Your task to perform on an android device: Open the calendar and show me this week's events? Image 0: 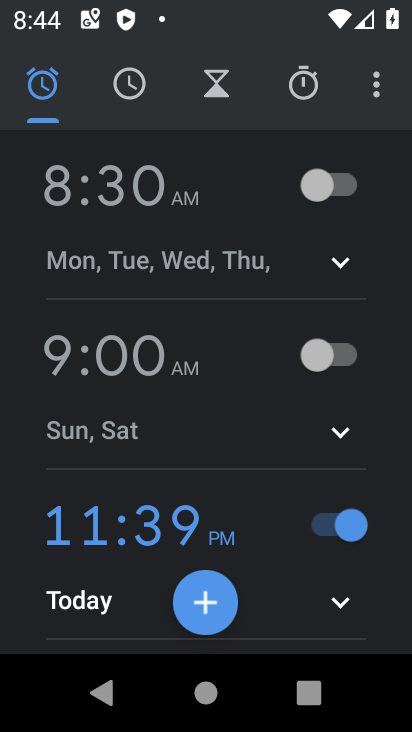
Step 0: press home button
Your task to perform on an android device: Open the calendar and show me this week's events? Image 1: 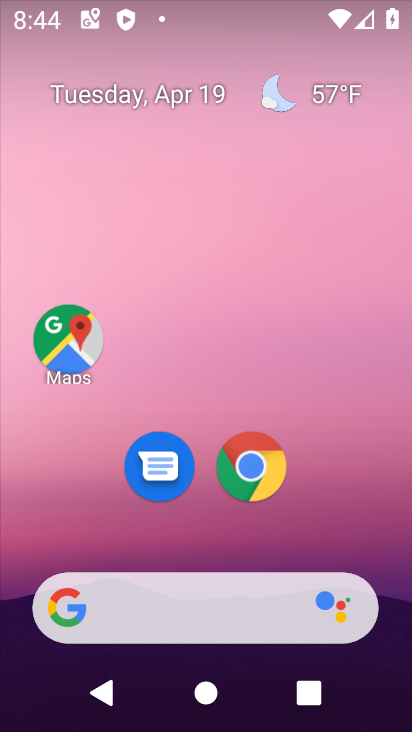
Step 1: drag from (210, 408) to (210, 65)
Your task to perform on an android device: Open the calendar and show me this week's events? Image 2: 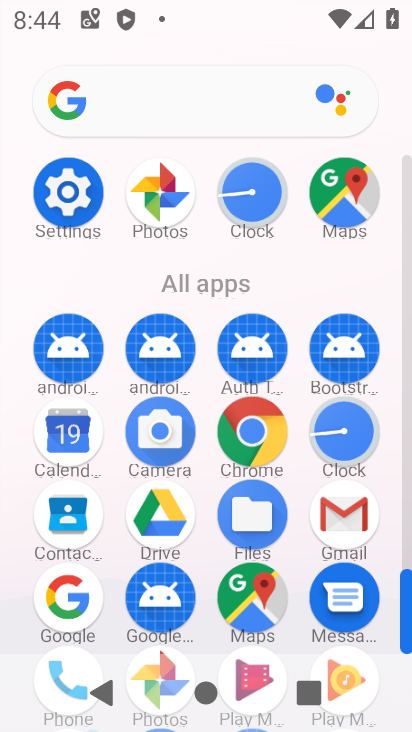
Step 2: click (64, 433)
Your task to perform on an android device: Open the calendar and show me this week's events? Image 3: 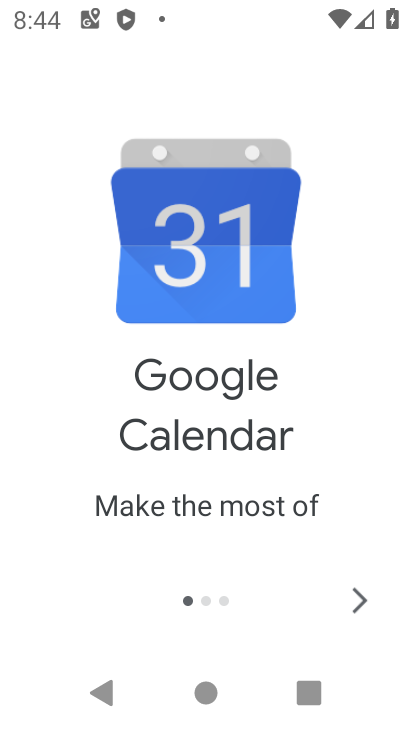
Step 3: click (363, 599)
Your task to perform on an android device: Open the calendar and show me this week's events? Image 4: 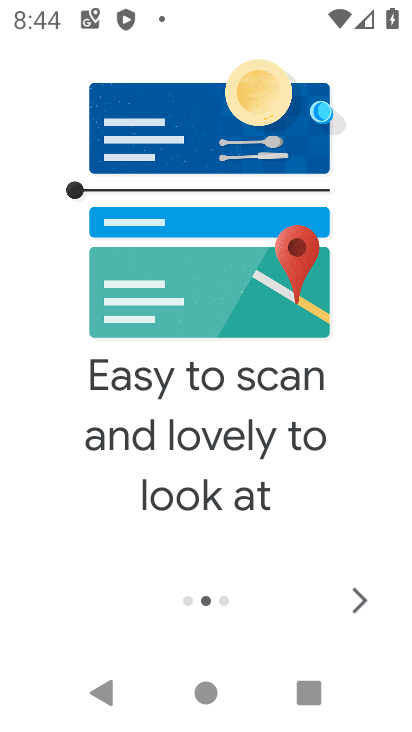
Step 4: click (363, 599)
Your task to perform on an android device: Open the calendar and show me this week's events? Image 5: 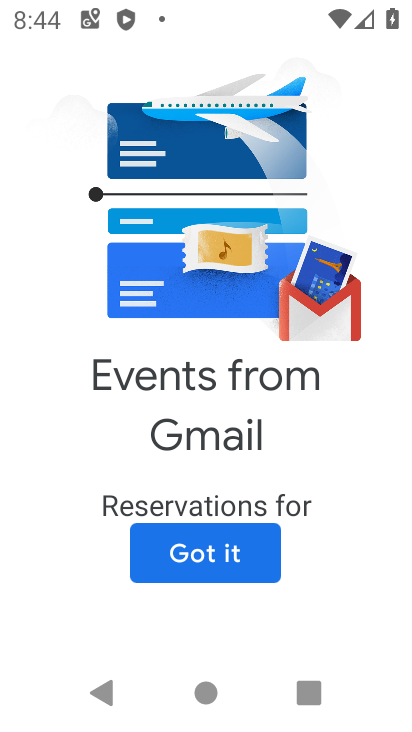
Step 5: click (211, 557)
Your task to perform on an android device: Open the calendar and show me this week's events? Image 6: 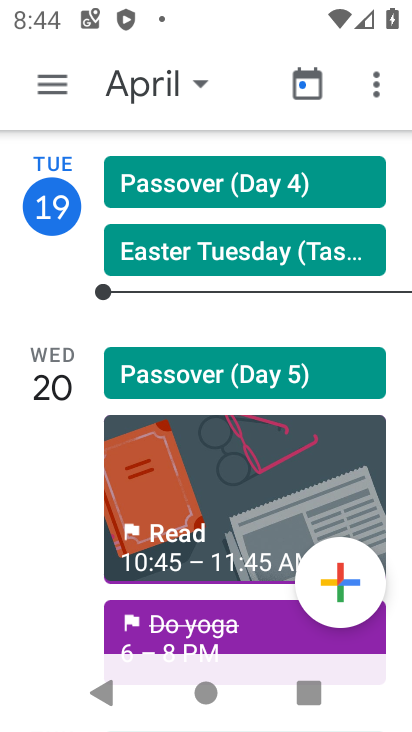
Step 6: click (51, 84)
Your task to perform on an android device: Open the calendar and show me this week's events? Image 7: 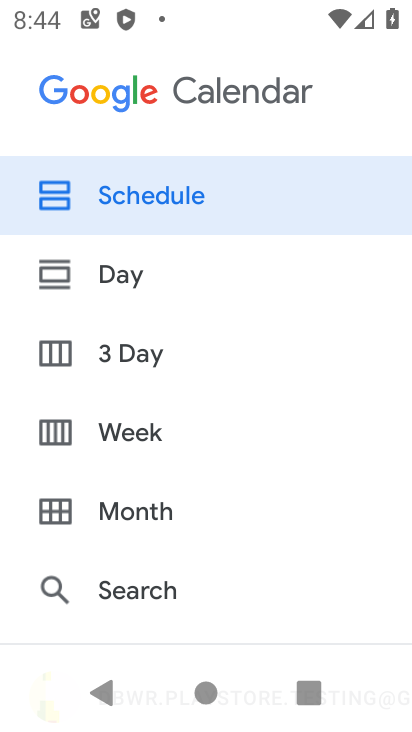
Step 7: click (137, 427)
Your task to perform on an android device: Open the calendar and show me this week's events? Image 8: 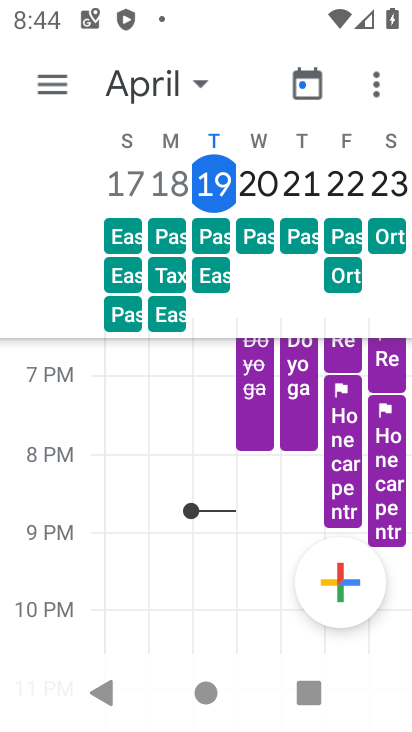
Step 8: task complete